Your task to perform on an android device: open app "Spotify" (install if not already installed) and go to login screen Image 0: 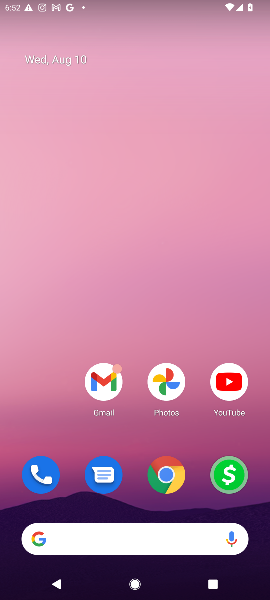
Step 0: drag from (115, 519) to (167, 160)
Your task to perform on an android device: open app "Spotify" (install if not already installed) and go to login screen Image 1: 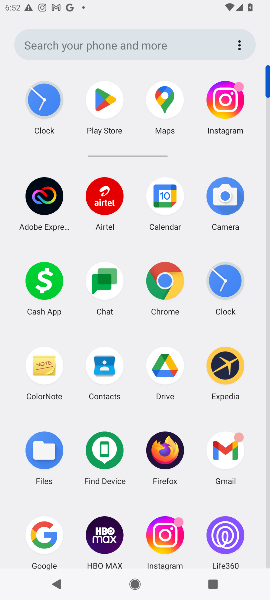
Step 1: click (100, 106)
Your task to perform on an android device: open app "Spotify" (install if not already installed) and go to login screen Image 2: 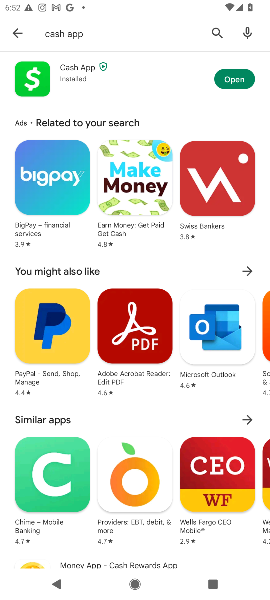
Step 2: click (215, 33)
Your task to perform on an android device: open app "Spotify" (install if not already installed) and go to login screen Image 3: 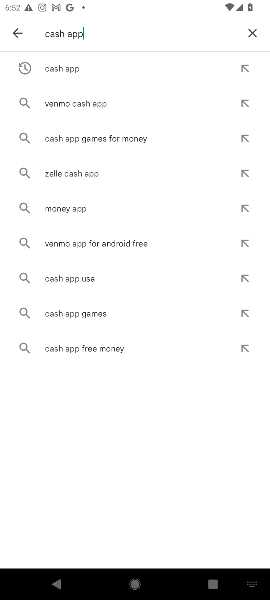
Step 3: click (254, 32)
Your task to perform on an android device: open app "Spotify" (install if not already installed) and go to login screen Image 4: 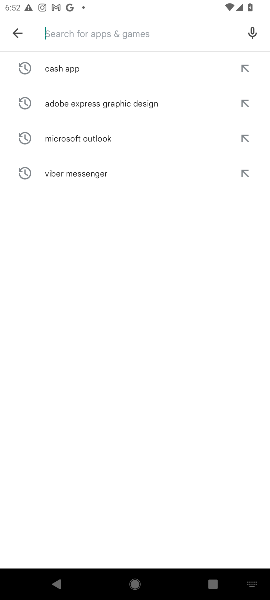
Step 4: type "Spotify"
Your task to perform on an android device: open app "Spotify" (install if not already installed) and go to login screen Image 5: 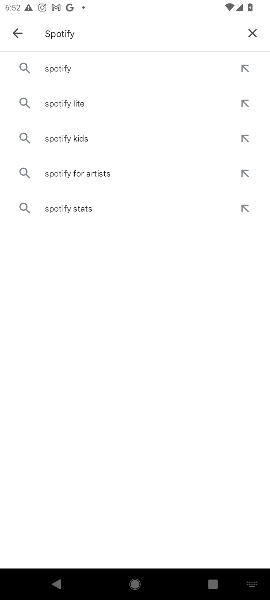
Step 5: click (51, 65)
Your task to perform on an android device: open app "Spotify" (install if not already installed) and go to login screen Image 6: 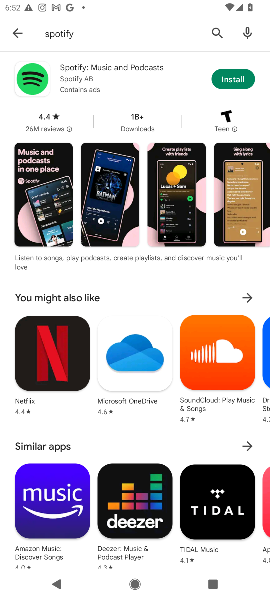
Step 6: click (215, 81)
Your task to perform on an android device: open app "Spotify" (install if not already installed) and go to login screen Image 7: 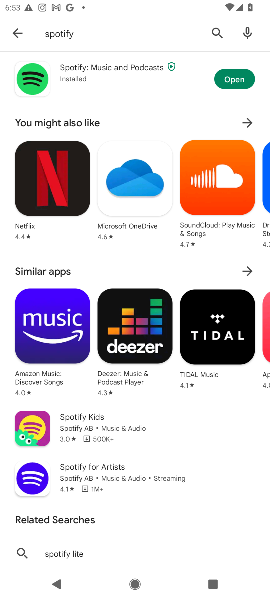
Step 7: click (237, 83)
Your task to perform on an android device: open app "Spotify" (install if not already installed) and go to login screen Image 8: 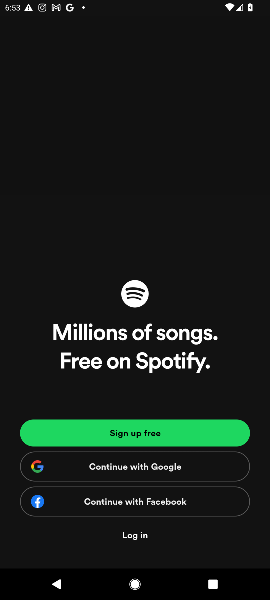
Step 8: task complete